Your task to perform on an android device: delete the emails in spam in the gmail app Image 0: 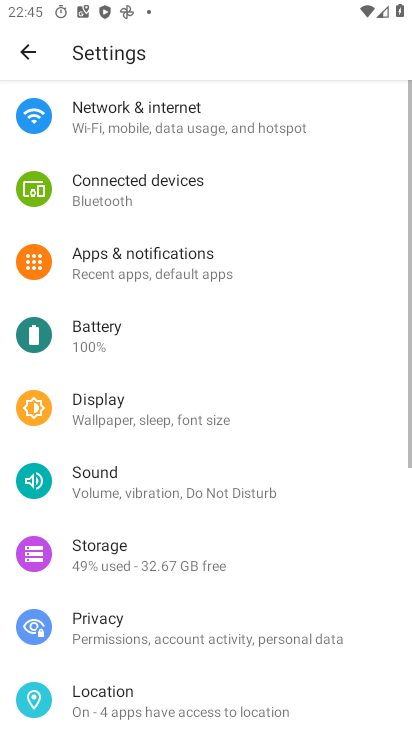
Step 0: press home button
Your task to perform on an android device: delete the emails in spam in the gmail app Image 1: 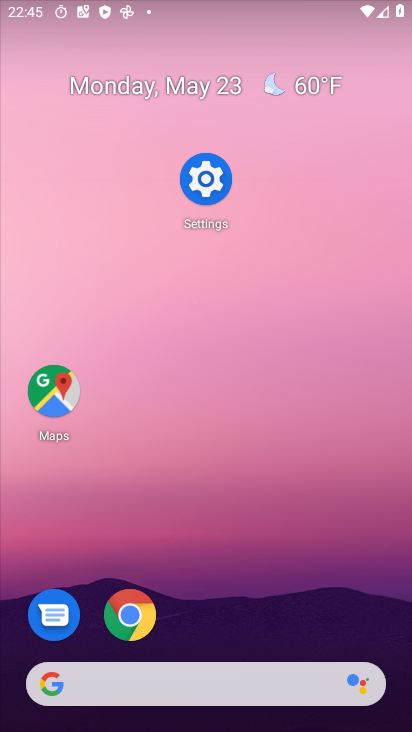
Step 1: drag from (229, 549) to (275, 102)
Your task to perform on an android device: delete the emails in spam in the gmail app Image 2: 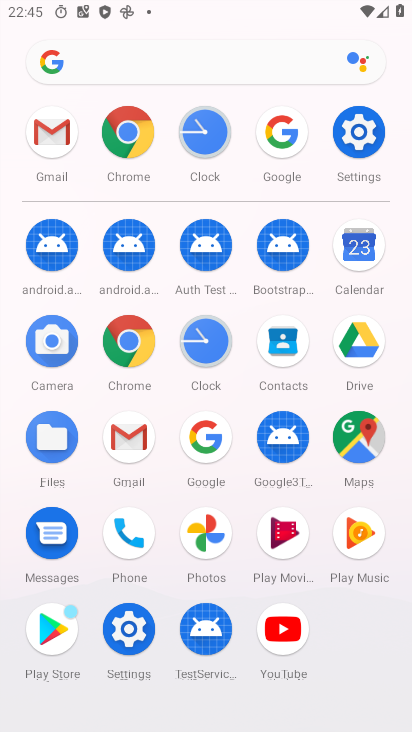
Step 2: click (128, 446)
Your task to perform on an android device: delete the emails in spam in the gmail app Image 3: 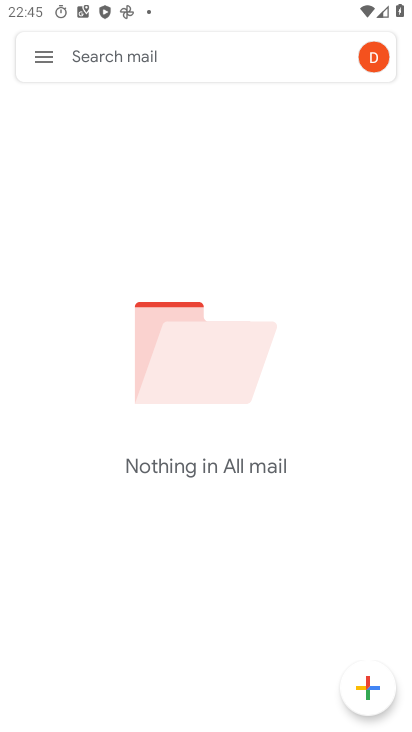
Step 3: click (41, 59)
Your task to perform on an android device: delete the emails in spam in the gmail app Image 4: 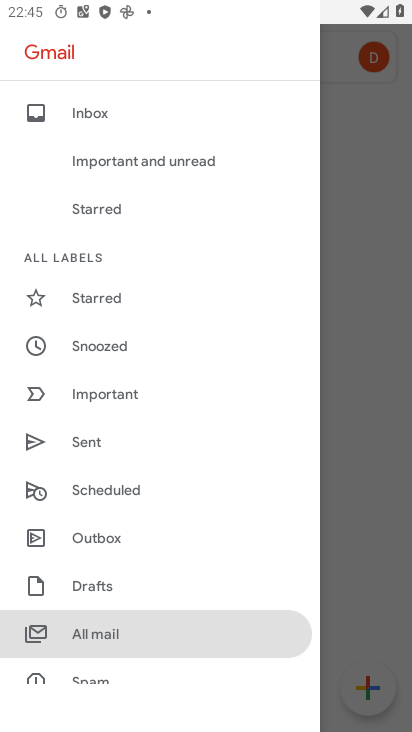
Step 4: click (105, 638)
Your task to perform on an android device: delete the emails in spam in the gmail app Image 5: 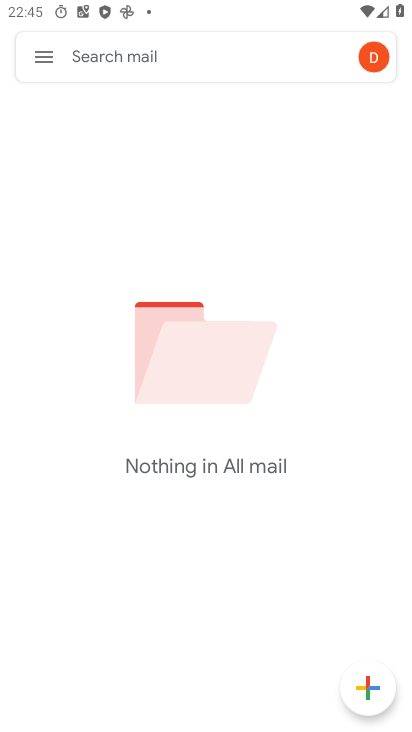
Step 5: click (49, 53)
Your task to perform on an android device: delete the emails in spam in the gmail app Image 6: 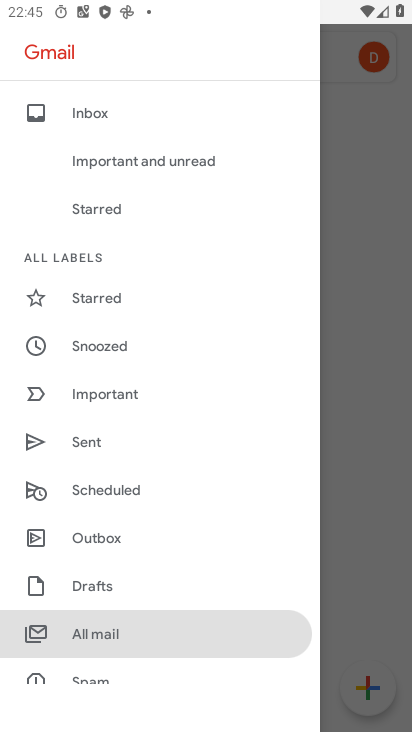
Step 6: task complete